Your task to perform on an android device: open sync settings in chrome Image 0: 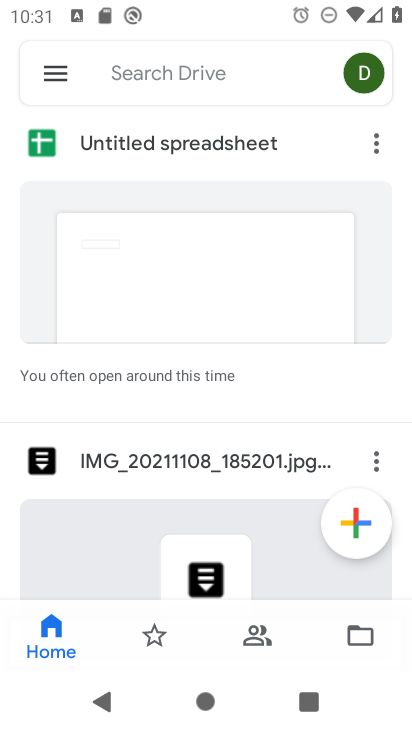
Step 0: press home button
Your task to perform on an android device: open sync settings in chrome Image 1: 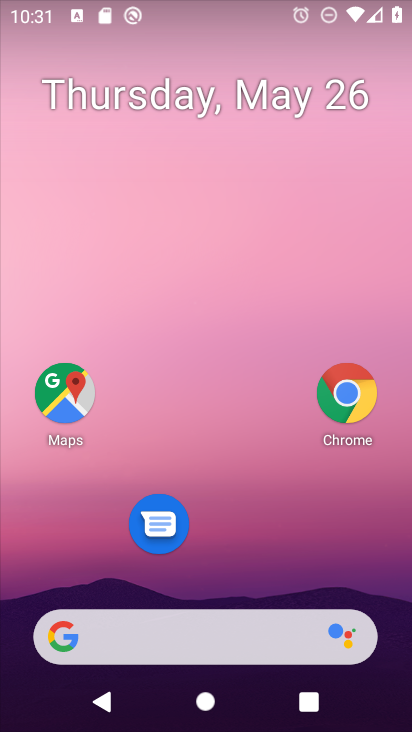
Step 1: click (360, 394)
Your task to perform on an android device: open sync settings in chrome Image 2: 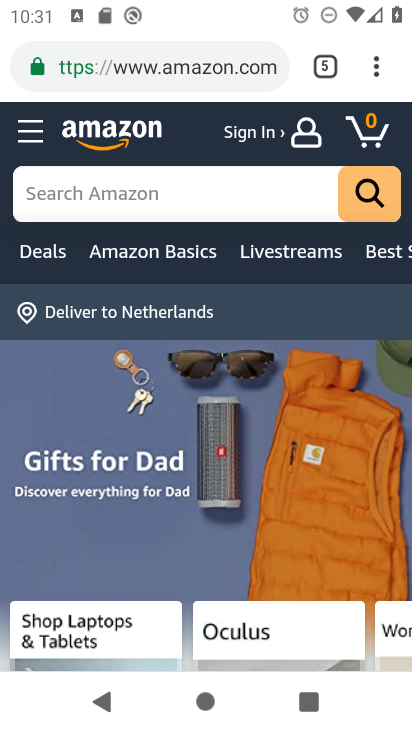
Step 2: click (376, 65)
Your task to perform on an android device: open sync settings in chrome Image 3: 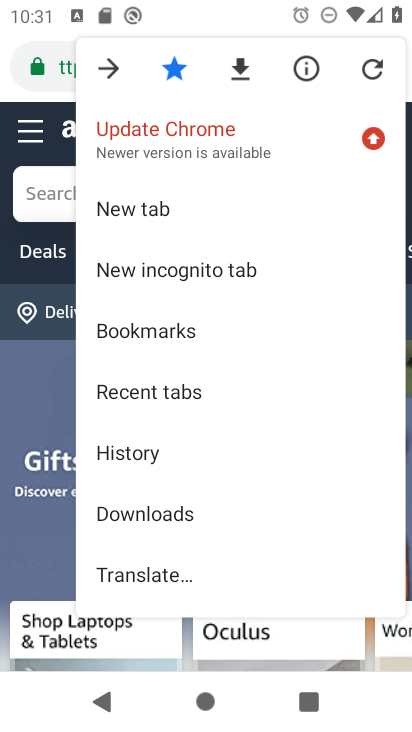
Step 3: drag from (269, 489) to (286, 251)
Your task to perform on an android device: open sync settings in chrome Image 4: 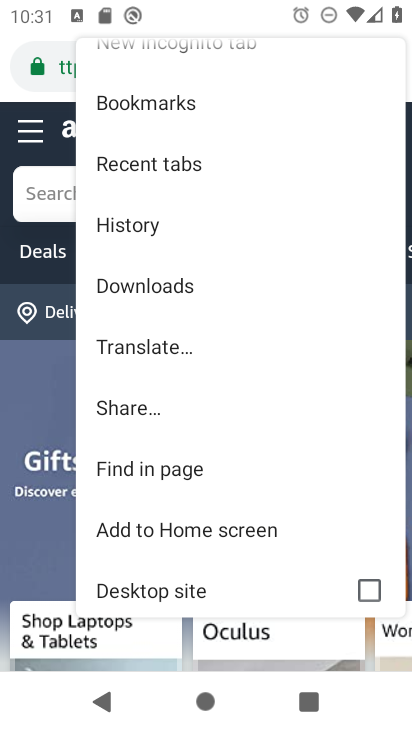
Step 4: drag from (250, 391) to (269, 144)
Your task to perform on an android device: open sync settings in chrome Image 5: 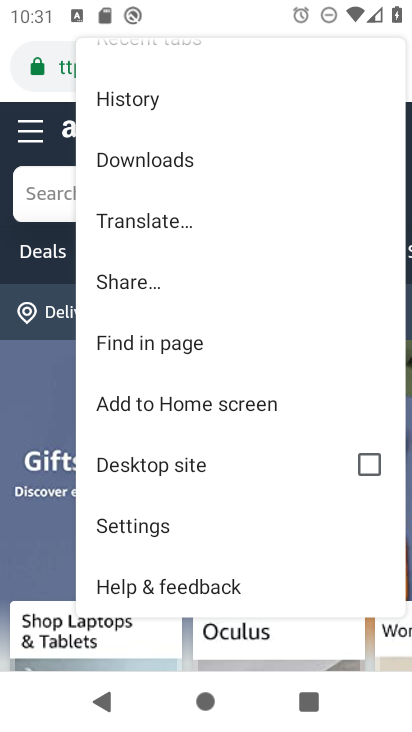
Step 5: click (205, 525)
Your task to perform on an android device: open sync settings in chrome Image 6: 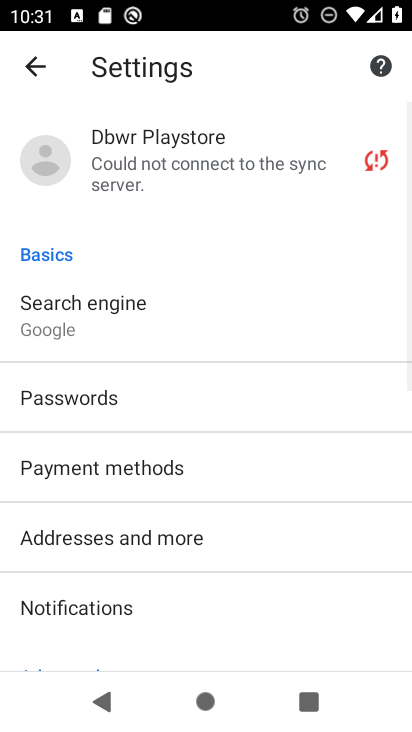
Step 6: click (252, 136)
Your task to perform on an android device: open sync settings in chrome Image 7: 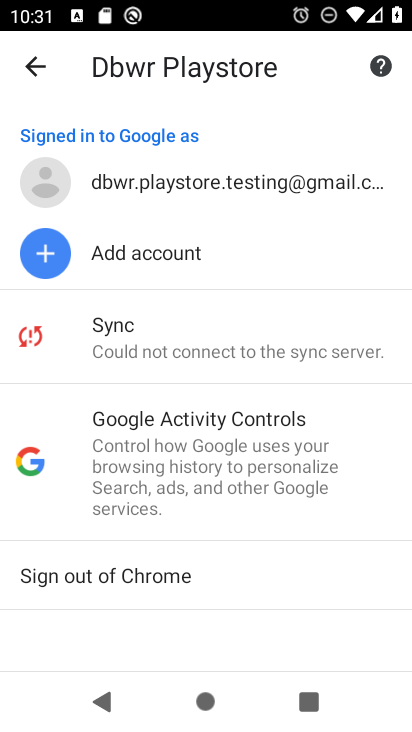
Step 7: click (212, 343)
Your task to perform on an android device: open sync settings in chrome Image 8: 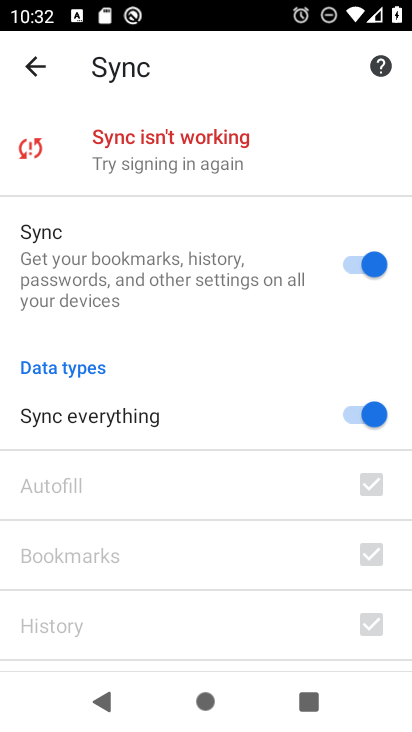
Step 8: task complete